Your task to perform on an android device: turn off wifi Image 0: 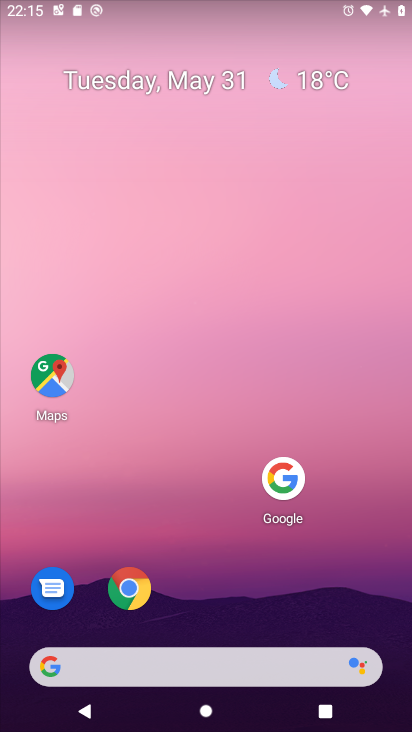
Step 0: drag from (160, 671) to (273, 77)
Your task to perform on an android device: turn off wifi Image 1: 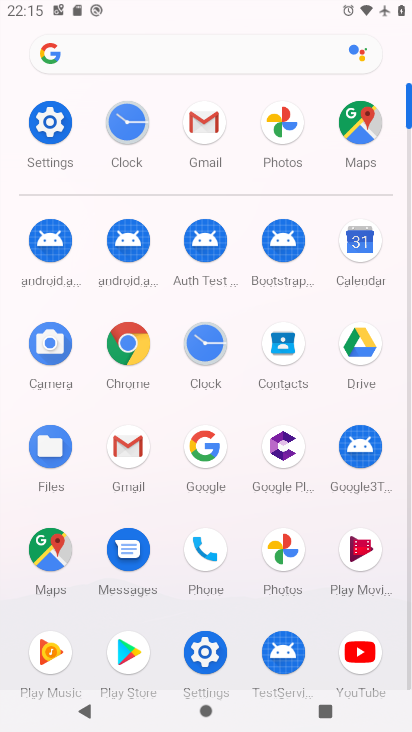
Step 1: click (29, 120)
Your task to perform on an android device: turn off wifi Image 2: 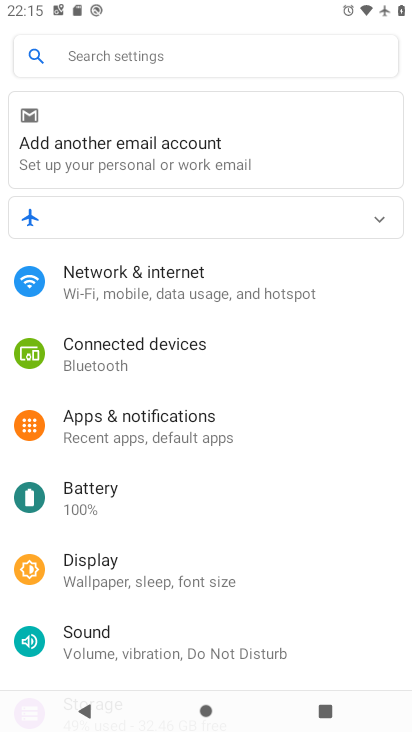
Step 2: click (153, 278)
Your task to perform on an android device: turn off wifi Image 3: 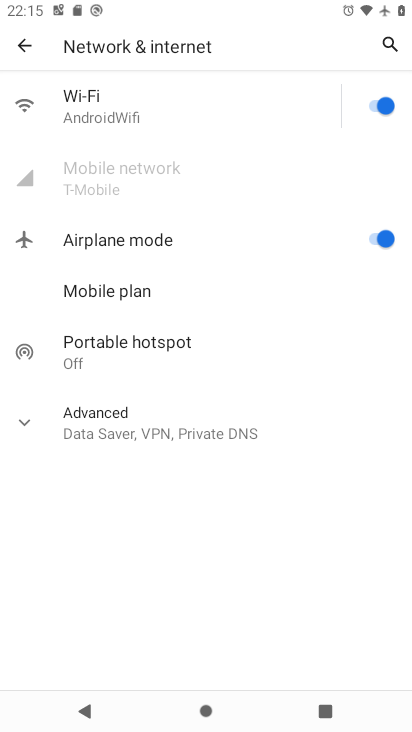
Step 3: click (372, 101)
Your task to perform on an android device: turn off wifi Image 4: 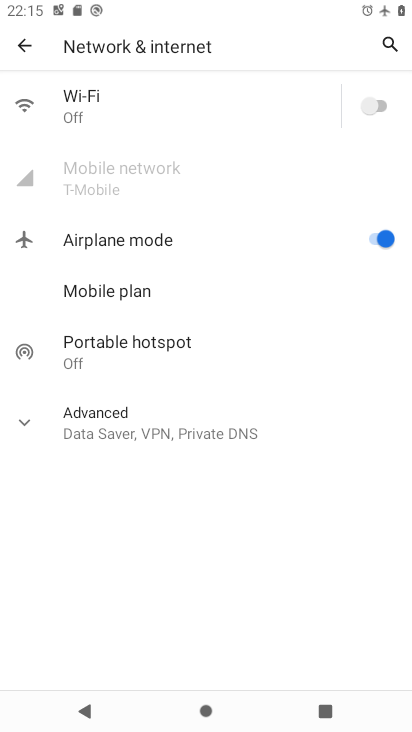
Step 4: task complete